Your task to perform on an android device: Open battery settings Image 0: 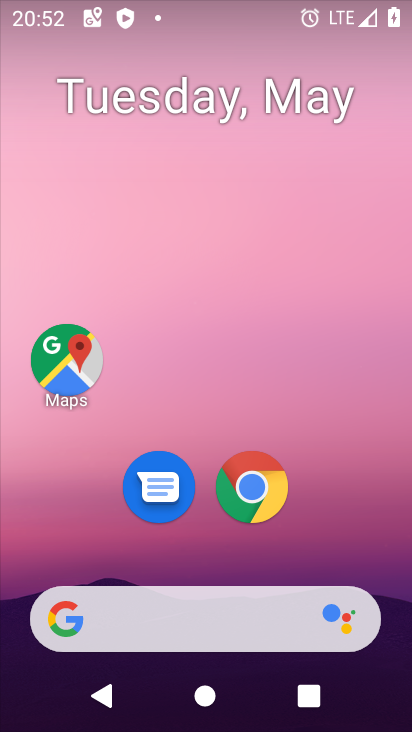
Step 0: drag from (342, 525) to (198, 8)
Your task to perform on an android device: Open battery settings Image 1: 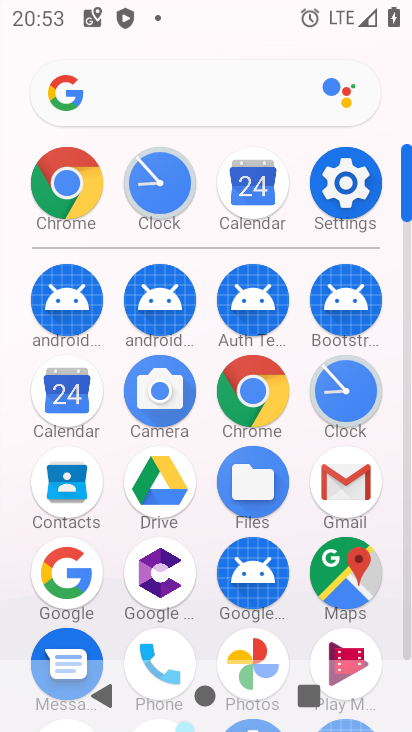
Step 1: click (345, 181)
Your task to perform on an android device: Open battery settings Image 2: 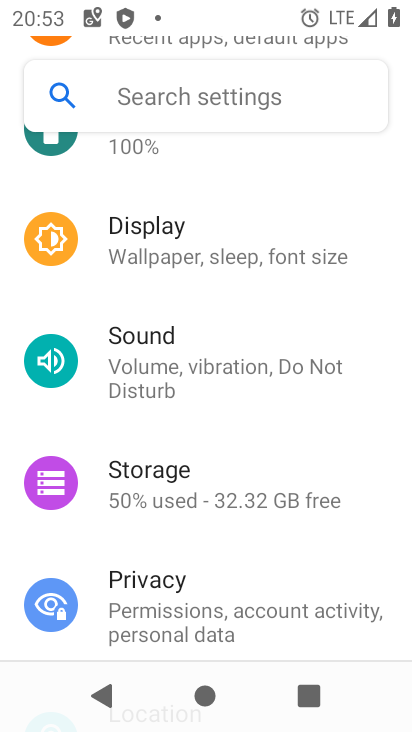
Step 2: drag from (200, 201) to (306, 637)
Your task to perform on an android device: Open battery settings Image 3: 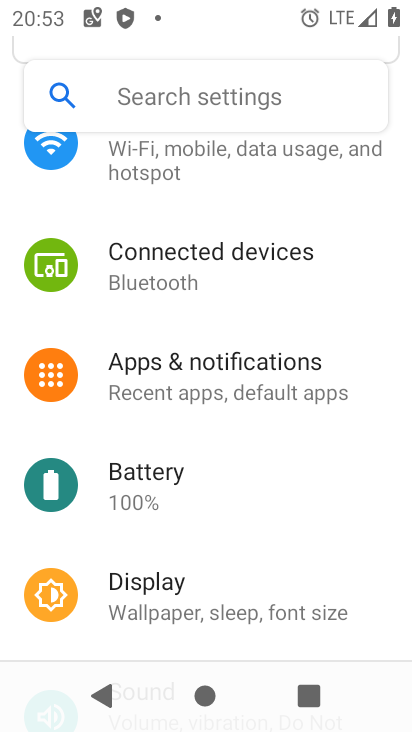
Step 3: drag from (227, 313) to (204, 722)
Your task to perform on an android device: Open battery settings Image 4: 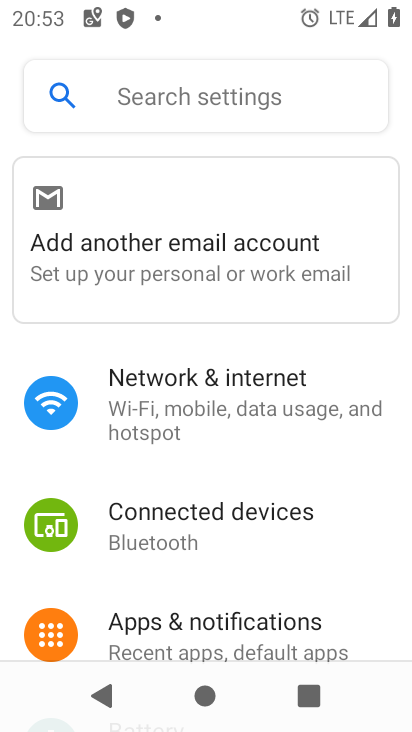
Step 4: drag from (220, 544) to (183, 328)
Your task to perform on an android device: Open battery settings Image 5: 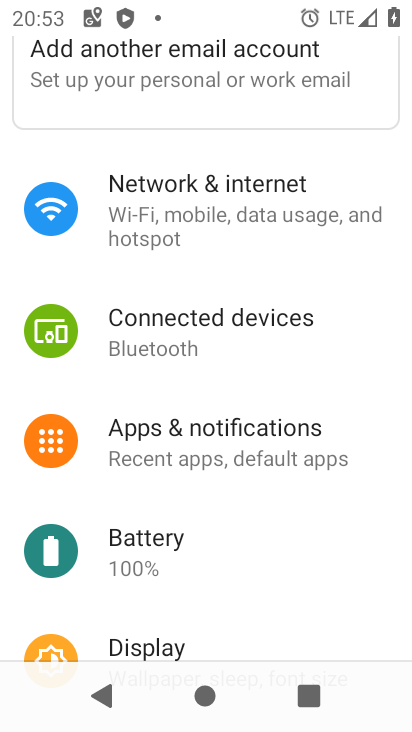
Step 5: click (131, 553)
Your task to perform on an android device: Open battery settings Image 6: 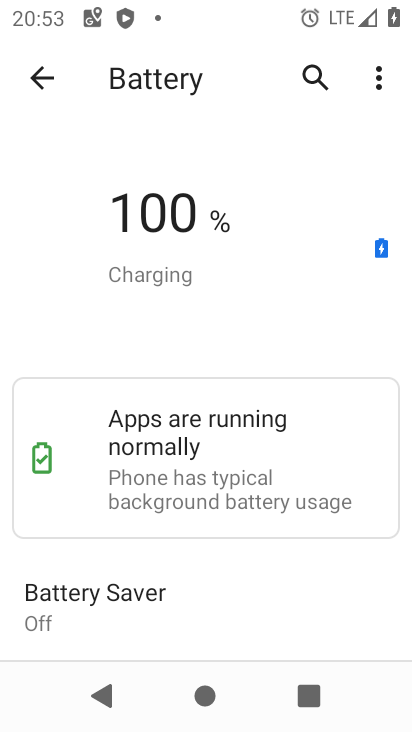
Step 6: task complete